Your task to perform on an android device: find which apps use the phone's location Image 0: 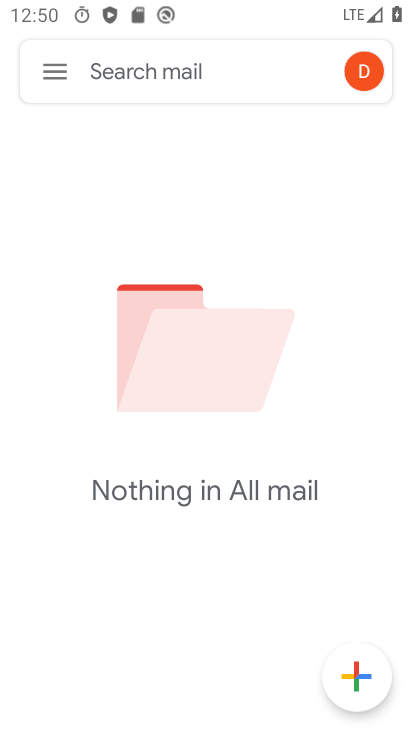
Step 0: press back button
Your task to perform on an android device: find which apps use the phone's location Image 1: 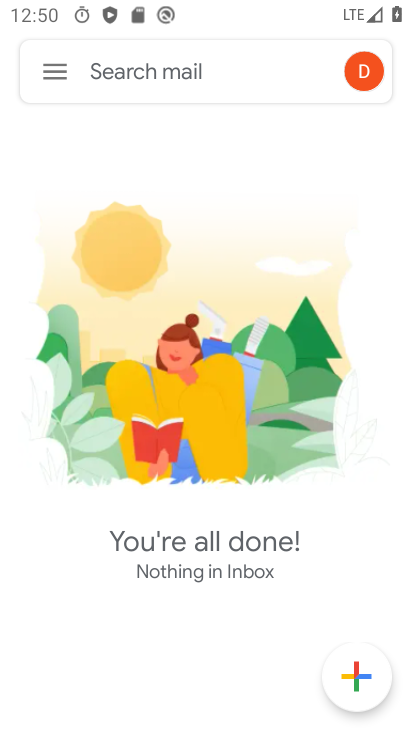
Step 1: press home button
Your task to perform on an android device: find which apps use the phone's location Image 2: 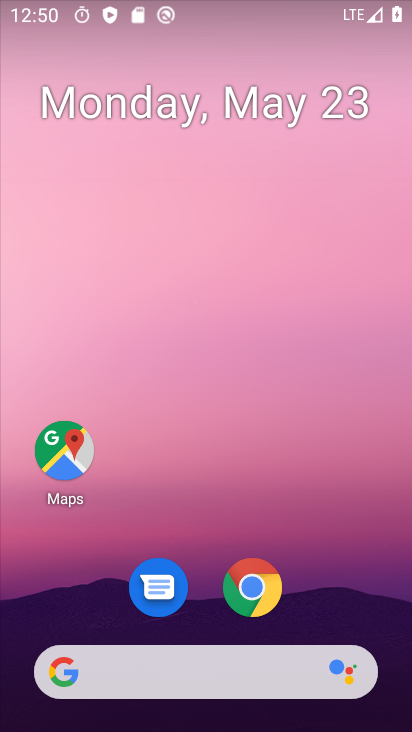
Step 2: drag from (182, 545) to (252, 112)
Your task to perform on an android device: find which apps use the phone's location Image 3: 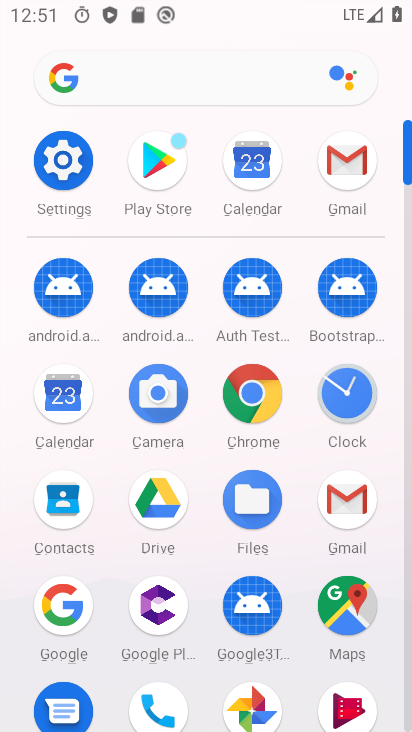
Step 3: click (52, 162)
Your task to perform on an android device: find which apps use the phone's location Image 4: 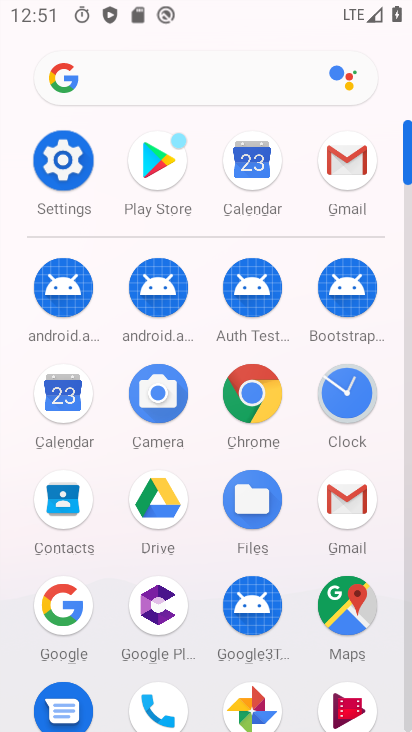
Step 4: click (76, 155)
Your task to perform on an android device: find which apps use the phone's location Image 5: 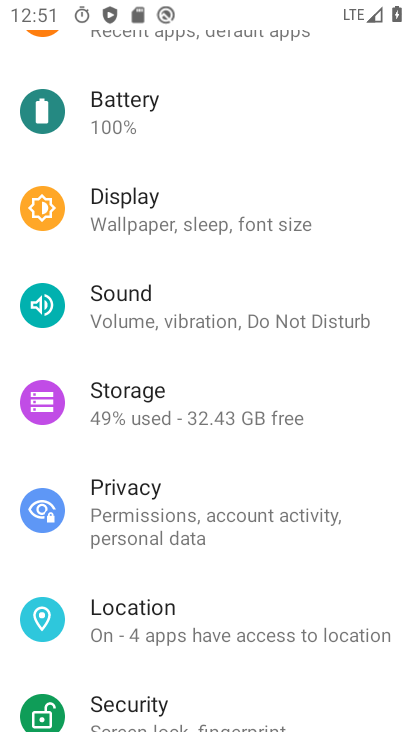
Step 5: click (153, 611)
Your task to perform on an android device: find which apps use the phone's location Image 6: 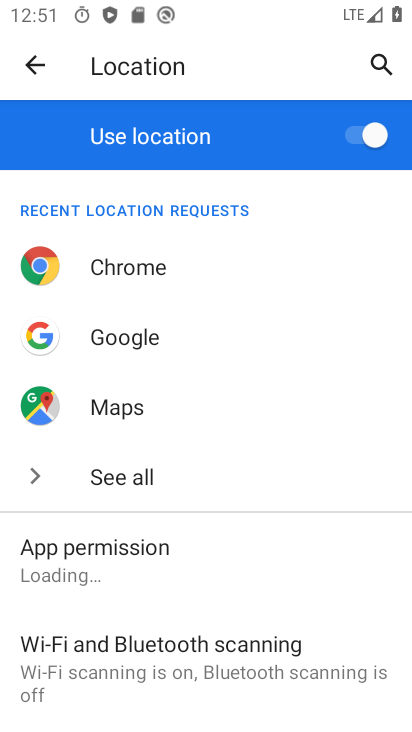
Step 6: click (264, 207)
Your task to perform on an android device: find which apps use the phone's location Image 7: 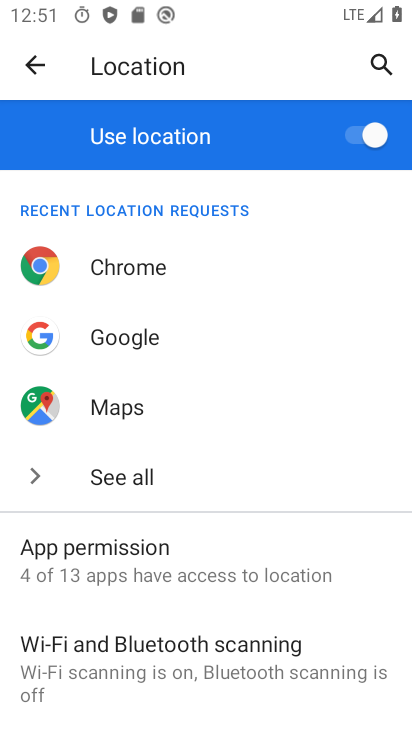
Step 7: click (76, 558)
Your task to perform on an android device: find which apps use the phone's location Image 8: 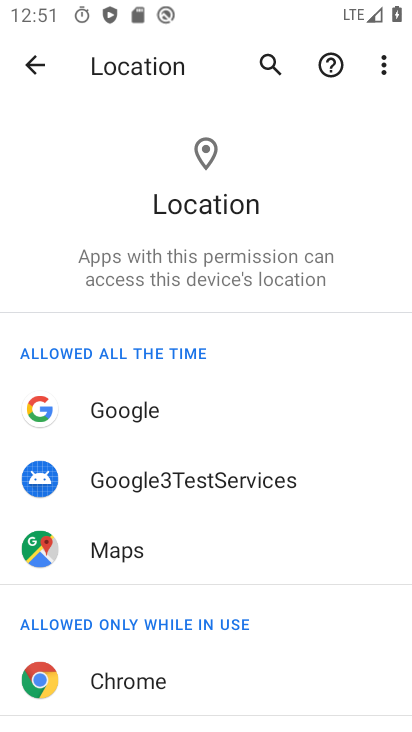
Step 8: task complete